Your task to perform on an android device: Show me the alarms in the clock app Image 0: 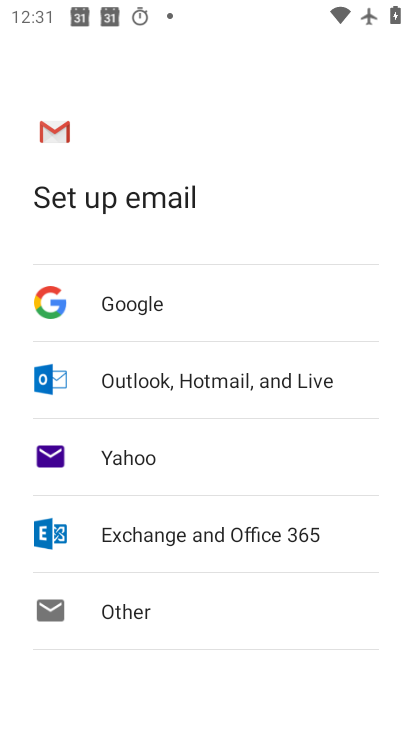
Step 0: press home button
Your task to perform on an android device: Show me the alarms in the clock app Image 1: 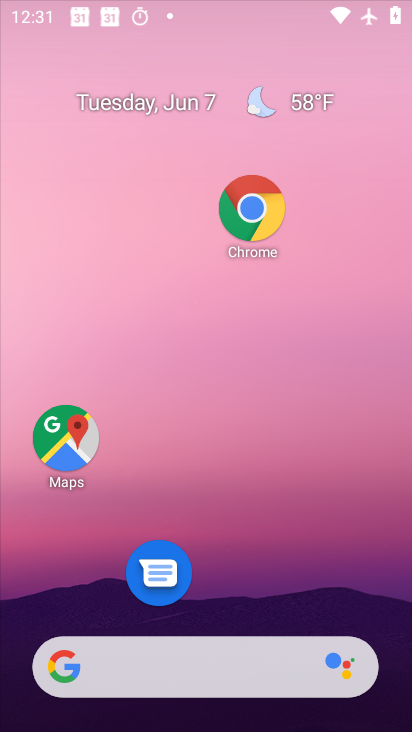
Step 1: drag from (229, 502) to (229, 88)
Your task to perform on an android device: Show me the alarms in the clock app Image 2: 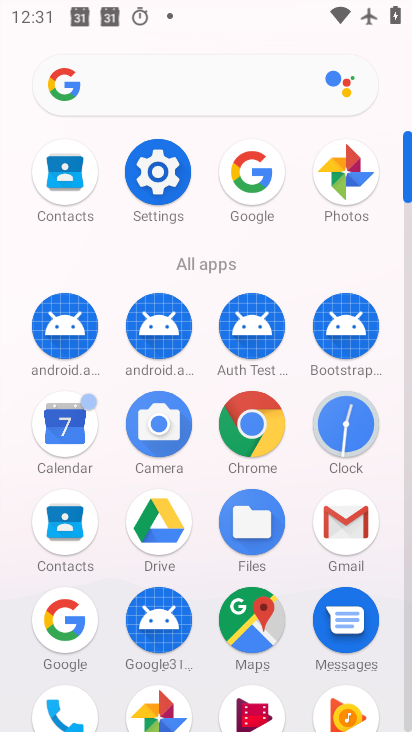
Step 2: click (340, 453)
Your task to perform on an android device: Show me the alarms in the clock app Image 3: 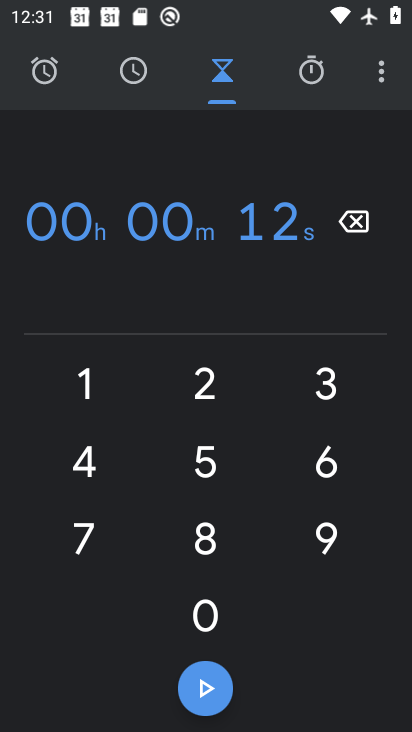
Step 3: click (52, 85)
Your task to perform on an android device: Show me the alarms in the clock app Image 4: 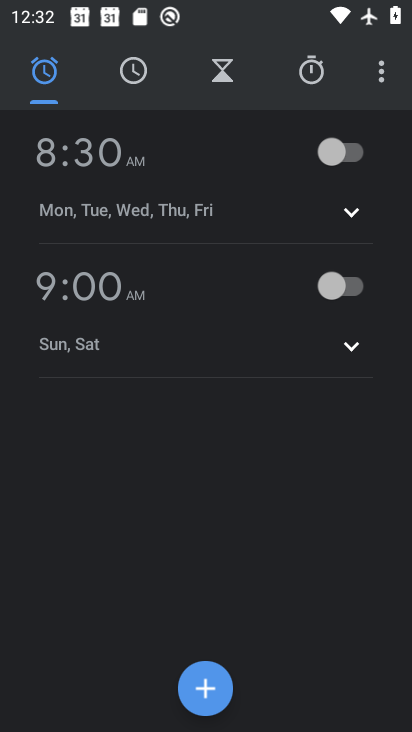
Step 4: click (382, 74)
Your task to perform on an android device: Show me the alarms in the clock app Image 5: 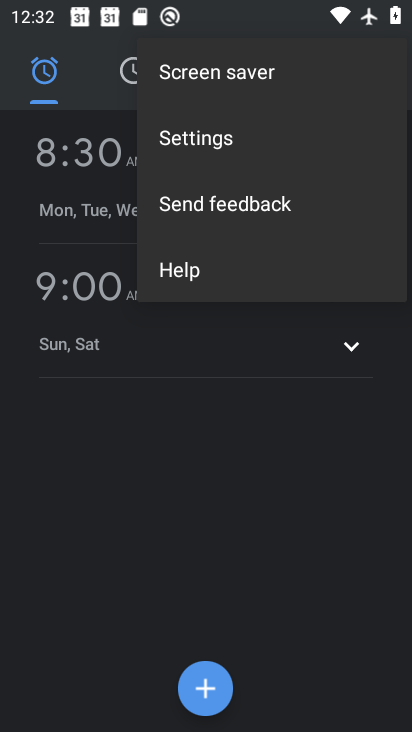
Step 5: click (155, 440)
Your task to perform on an android device: Show me the alarms in the clock app Image 6: 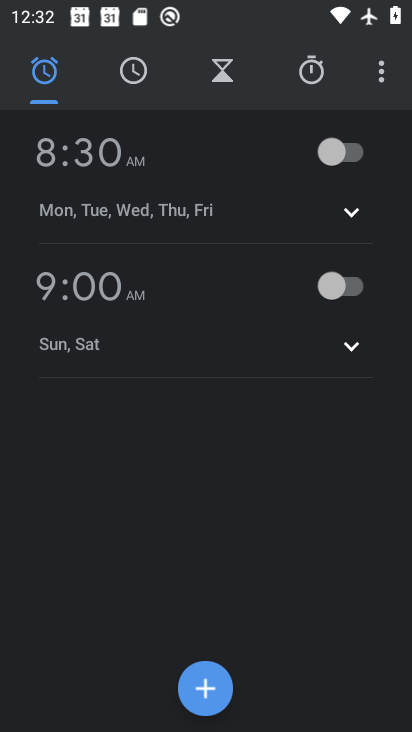
Step 6: task complete